Your task to perform on an android device: Open calendar and show me the second week of next month Image 0: 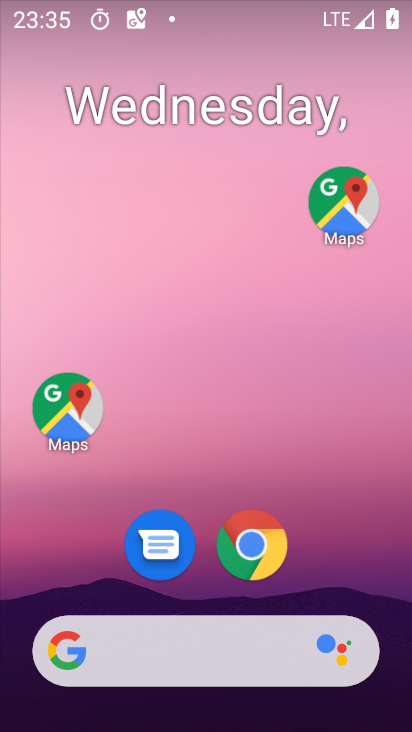
Step 0: drag from (341, 542) to (348, 62)
Your task to perform on an android device: Open calendar and show me the second week of next month Image 1: 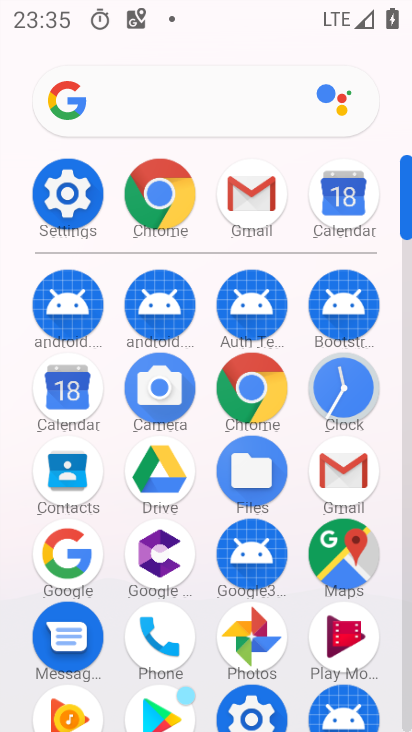
Step 1: click (51, 395)
Your task to perform on an android device: Open calendar and show me the second week of next month Image 2: 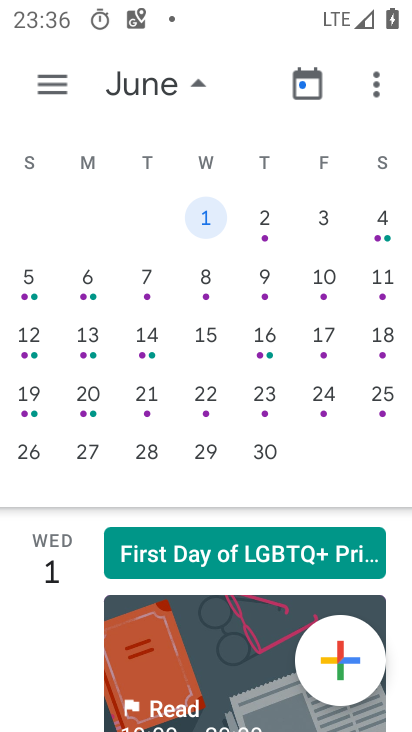
Step 2: click (32, 282)
Your task to perform on an android device: Open calendar and show me the second week of next month Image 3: 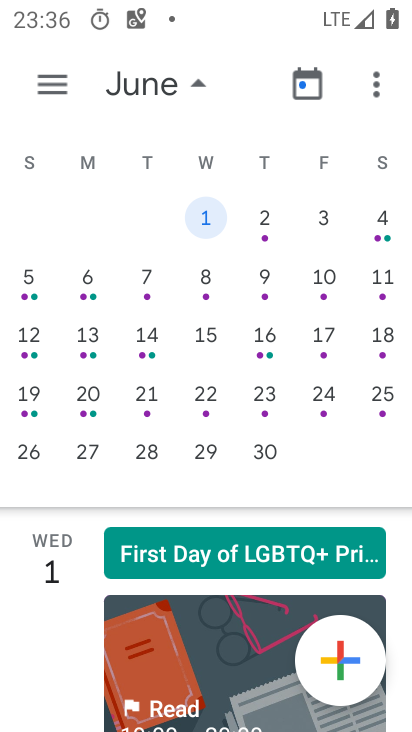
Step 3: click (41, 289)
Your task to perform on an android device: Open calendar and show me the second week of next month Image 4: 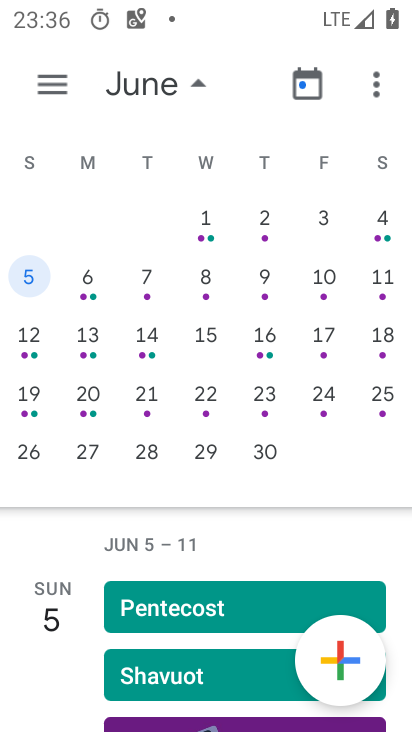
Step 4: task complete